Your task to perform on an android device: Go to Amazon Image 0: 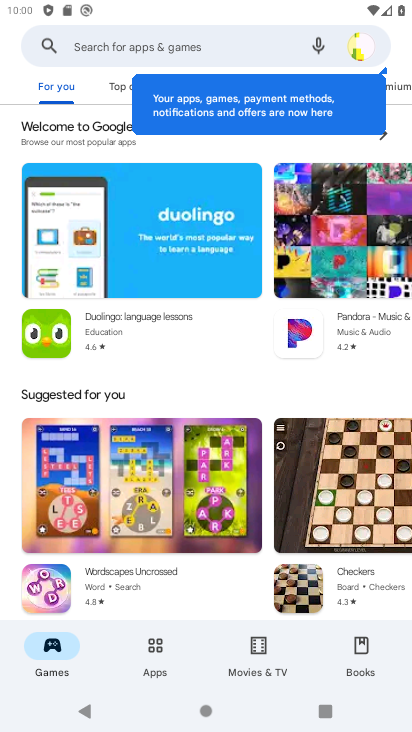
Step 0: press home button
Your task to perform on an android device: Go to Amazon Image 1: 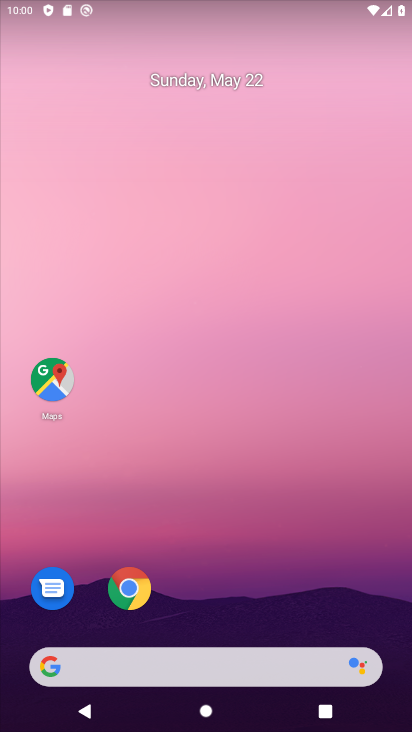
Step 1: click (130, 592)
Your task to perform on an android device: Go to Amazon Image 2: 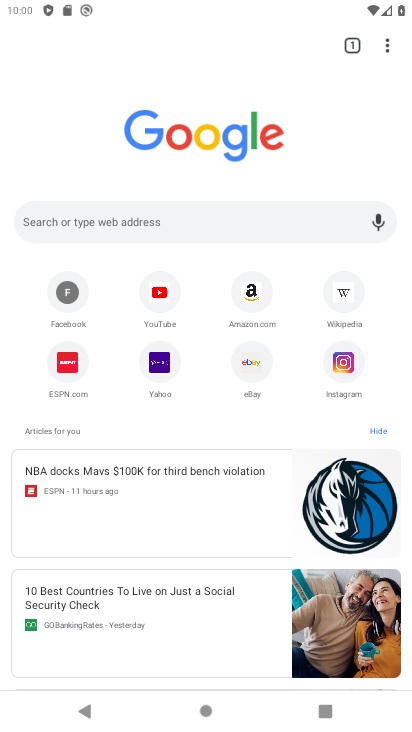
Step 2: click (253, 296)
Your task to perform on an android device: Go to Amazon Image 3: 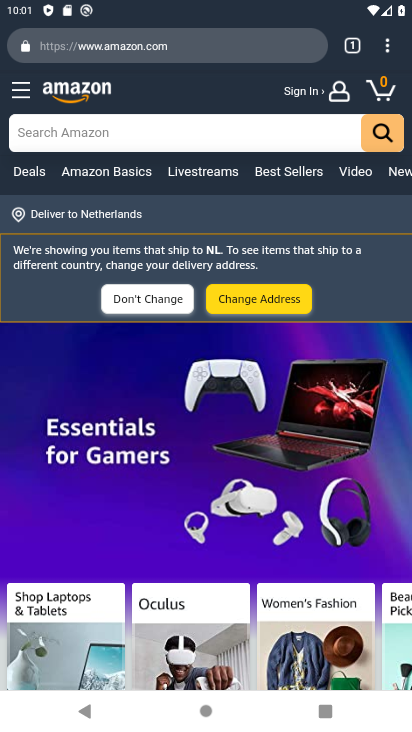
Step 3: task complete